Your task to perform on an android device: toggle priority inbox in the gmail app Image 0: 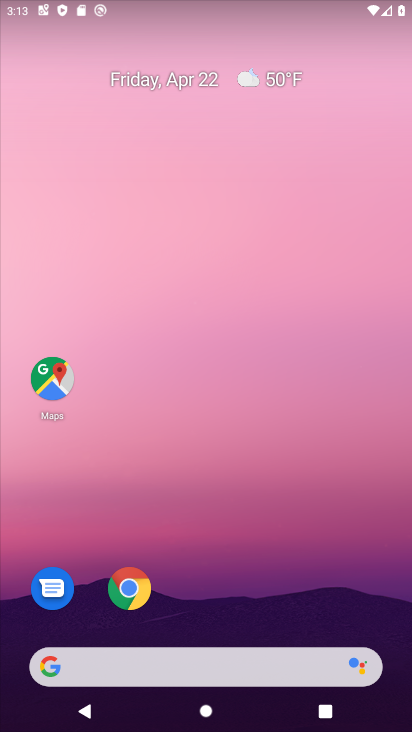
Step 0: drag from (355, 597) to (348, 137)
Your task to perform on an android device: toggle priority inbox in the gmail app Image 1: 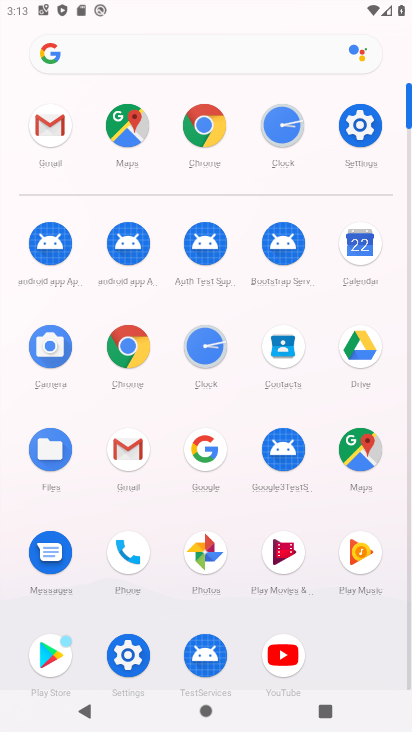
Step 1: click (118, 449)
Your task to perform on an android device: toggle priority inbox in the gmail app Image 2: 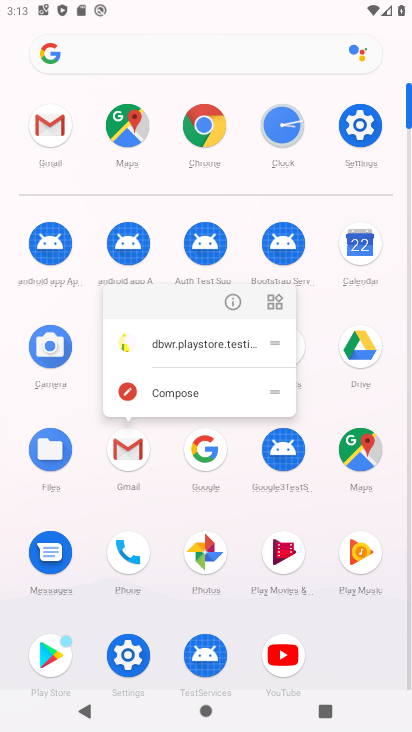
Step 2: click (118, 449)
Your task to perform on an android device: toggle priority inbox in the gmail app Image 3: 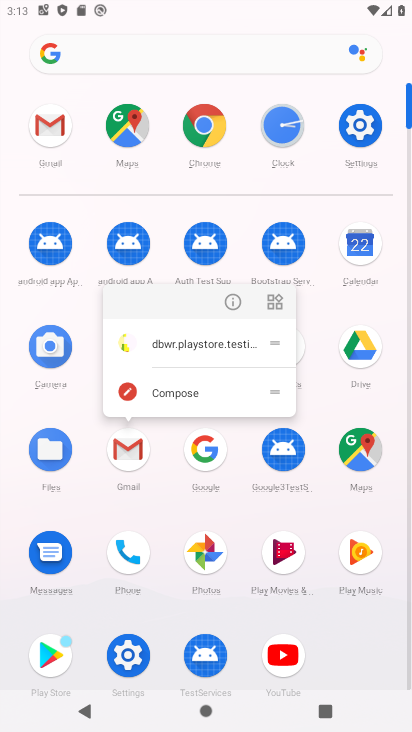
Step 3: click (138, 446)
Your task to perform on an android device: toggle priority inbox in the gmail app Image 4: 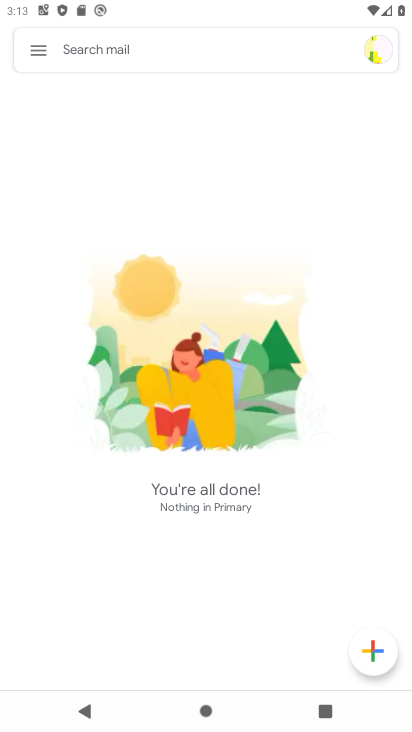
Step 4: click (33, 40)
Your task to perform on an android device: toggle priority inbox in the gmail app Image 5: 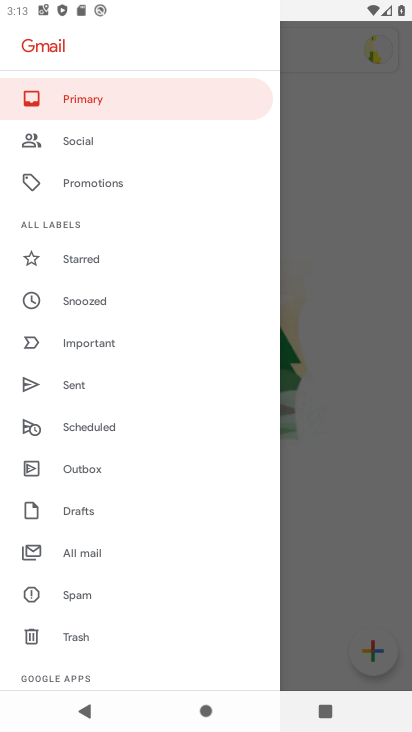
Step 5: drag from (185, 619) to (199, 427)
Your task to perform on an android device: toggle priority inbox in the gmail app Image 6: 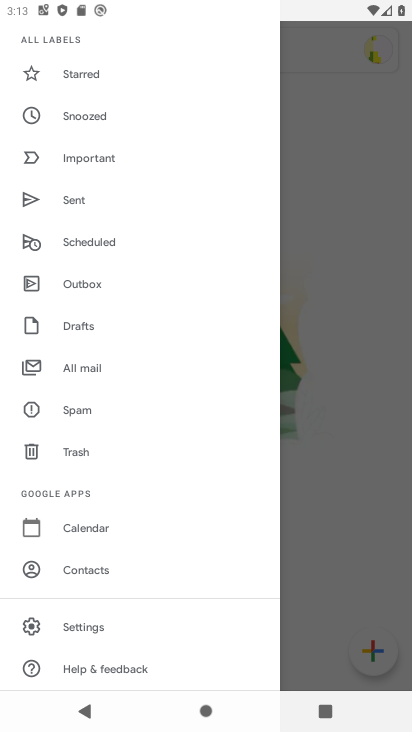
Step 6: click (135, 627)
Your task to perform on an android device: toggle priority inbox in the gmail app Image 7: 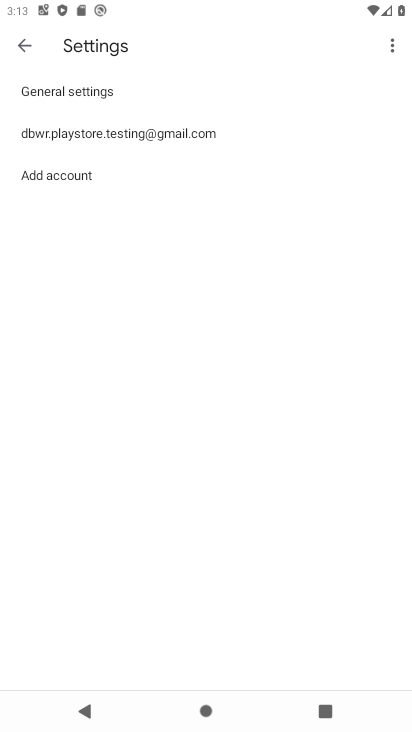
Step 7: click (210, 138)
Your task to perform on an android device: toggle priority inbox in the gmail app Image 8: 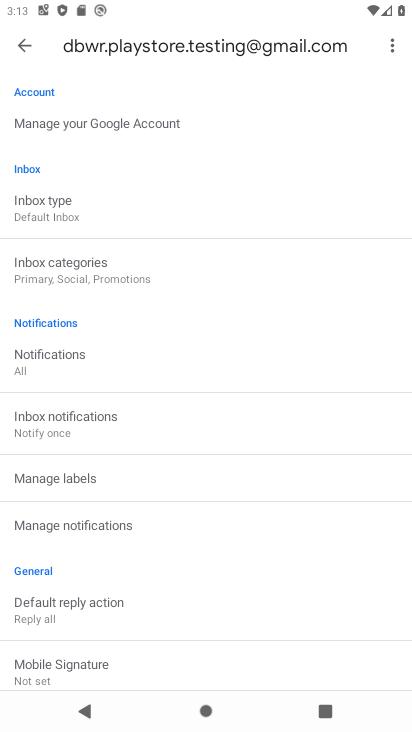
Step 8: drag from (313, 554) to (313, 411)
Your task to perform on an android device: toggle priority inbox in the gmail app Image 9: 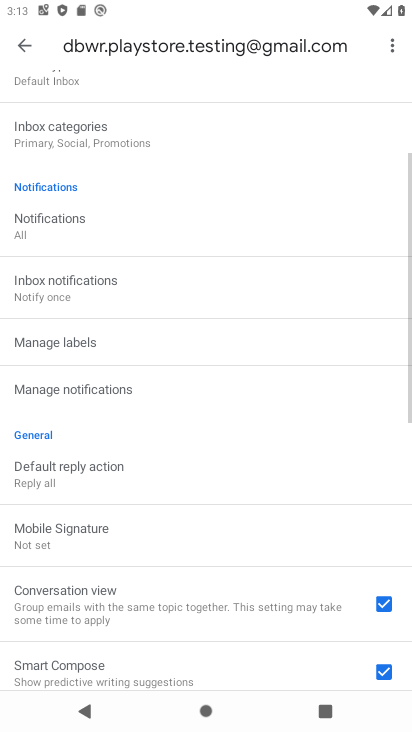
Step 9: drag from (306, 555) to (302, 389)
Your task to perform on an android device: toggle priority inbox in the gmail app Image 10: 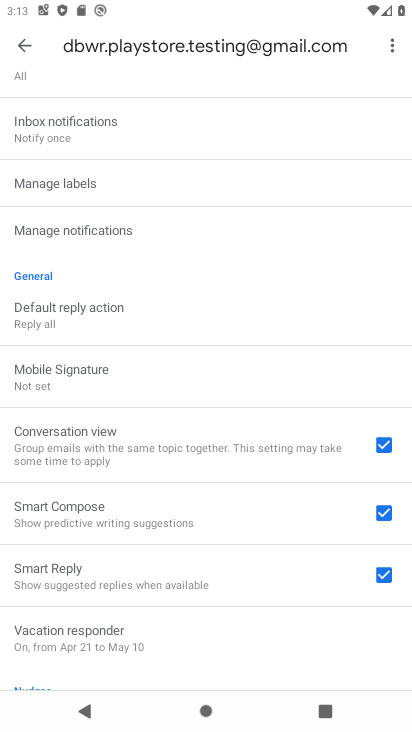
Step 10: drag from (289, 600) to (311, 264)
Your task to perform on an android device: toggle priority inbox in the gmail app Image 11: 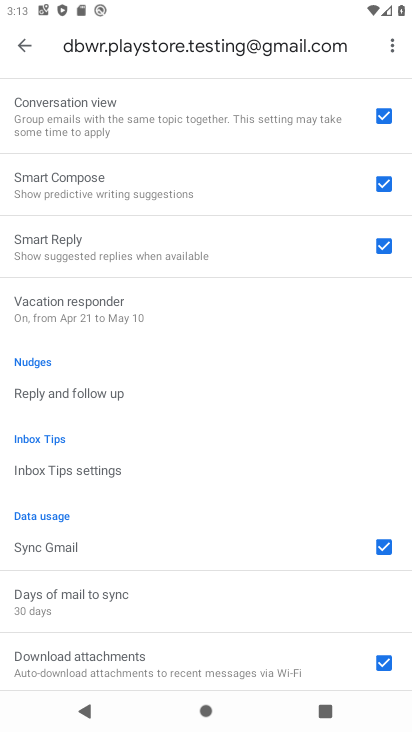
Step 11: drag from (275, 504) to (279, 387)
Your task to perform on an android device: toggle priority inbox in the gmail app Image 12: 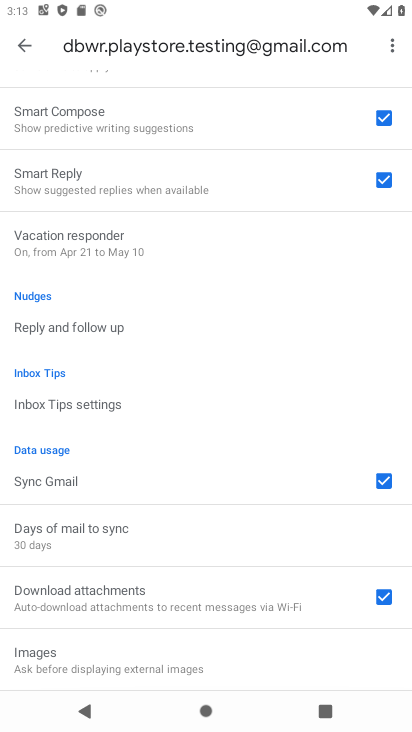
Step 12: drag from (275, 285) to (278, 443)
Your task to perform on an android device: toggle priority inbox in the gmail app Image 13: 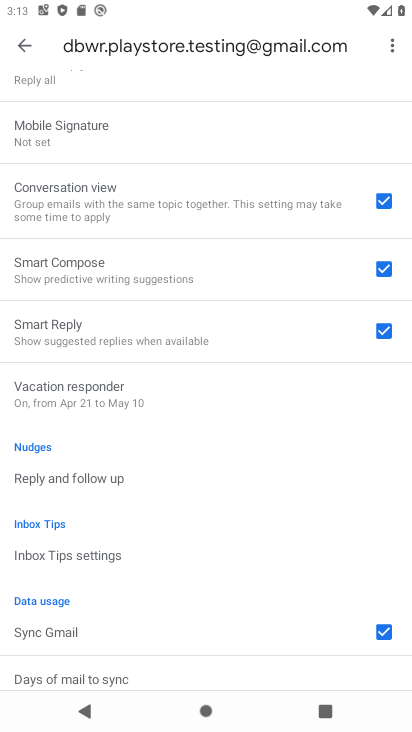
Step 13: drag from (265, 273) to (263, 443)
Your task to perform on an android device: toggle priority inbox in the gmail app Image 14: 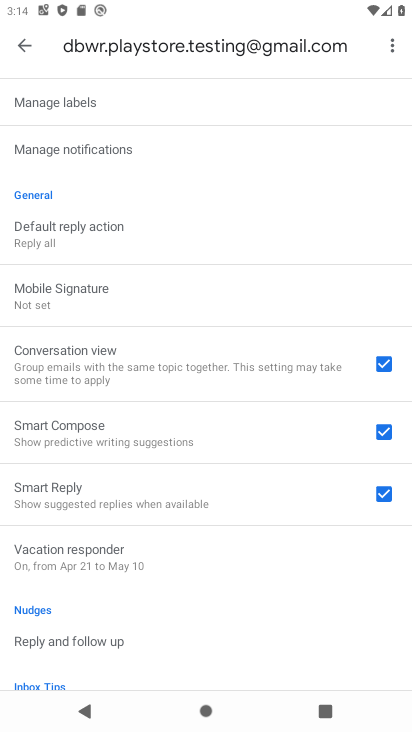
Step 14: drag from (254, 204) to (254, 367)
Your task to perform on an android device: toggle priority inbox in the gmail app Image 15: 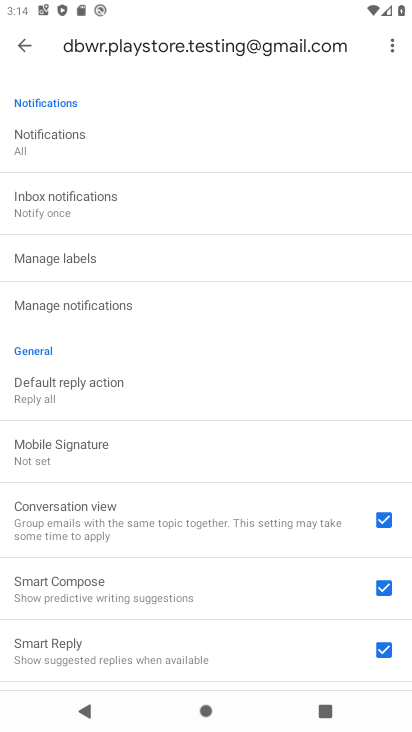
Step 15: drag from (252, 174) to (233, 352)
Your task to perform on an android device: toggle priority inbox in the gmail app Image 16: 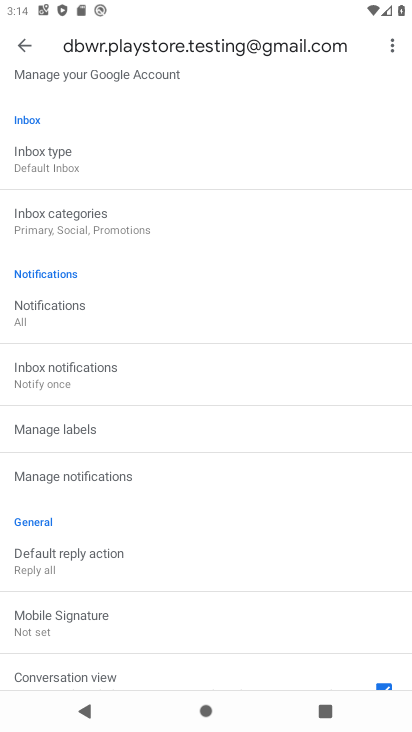
Step 16: drag from (226, 169) to (213, 325)
Your task to perform on an android device: toggle priority inbox in the gmail app Image 17: 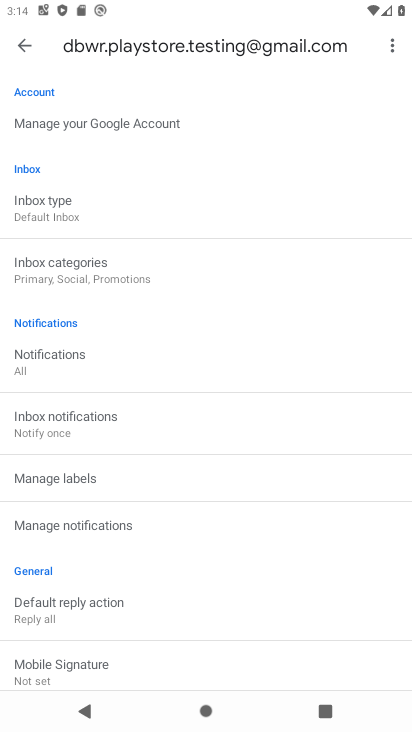
Step 17: click (88, 213)
Your task to perform on an android device: toggle priority inbox in the gmail app Image 18: 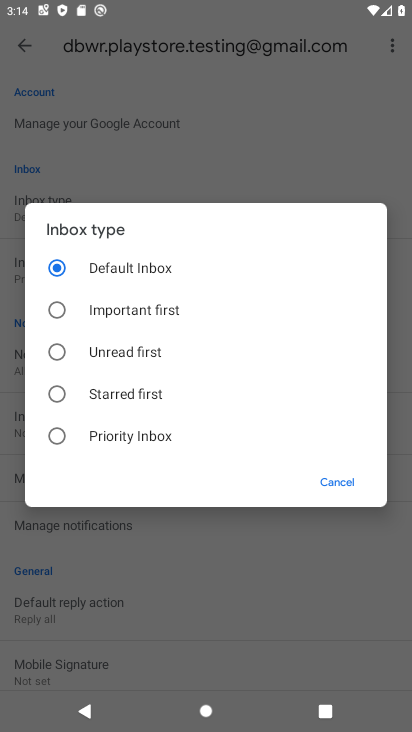
Step 18: click (171, 435)
Your task to perform on an android device: toggle priority inbox in the gmail app Image 19: 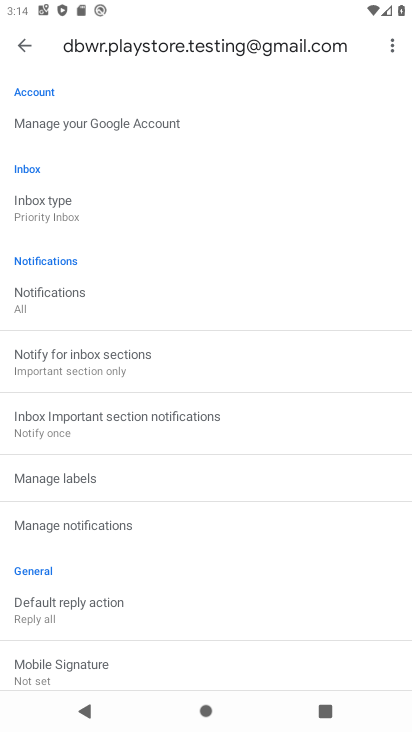
Step 19: task complete